Your task to perform on an android device: Turn off the flashlight Image 0: 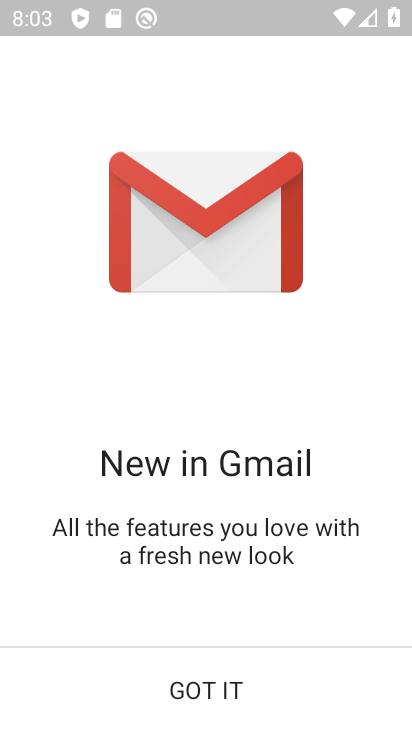
Step 0: press home button
Your task to perform on an android device: Turn off the flashlight Image 1: 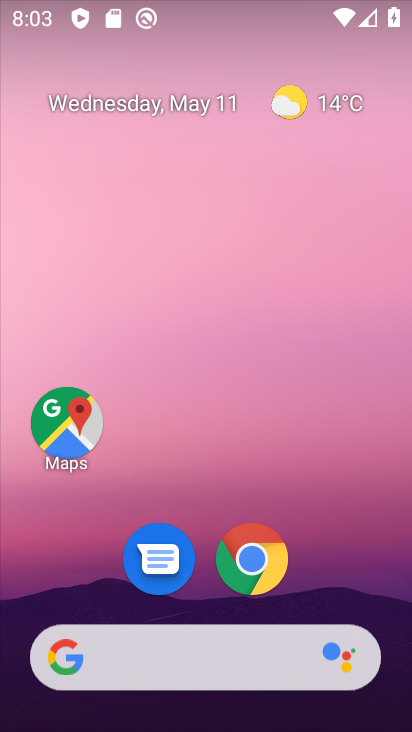
Step 1: task complete